Your task to perform on an android device: Go to privacy settings Image 0: 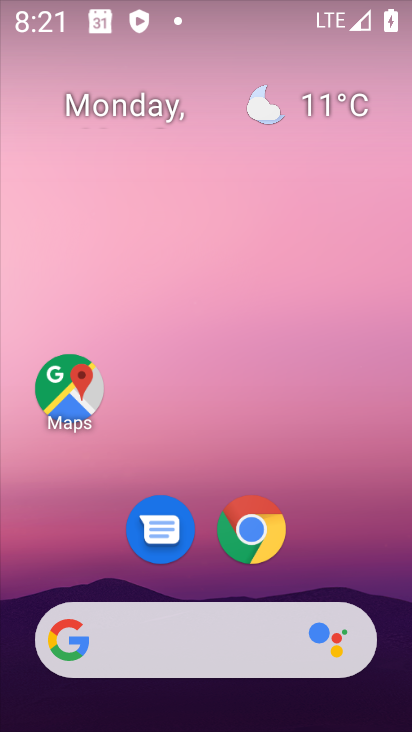
Step 0: drag from (218, 645) to (238, 65)
Your task to perform on an android device: Go to privacy settings Image 1: 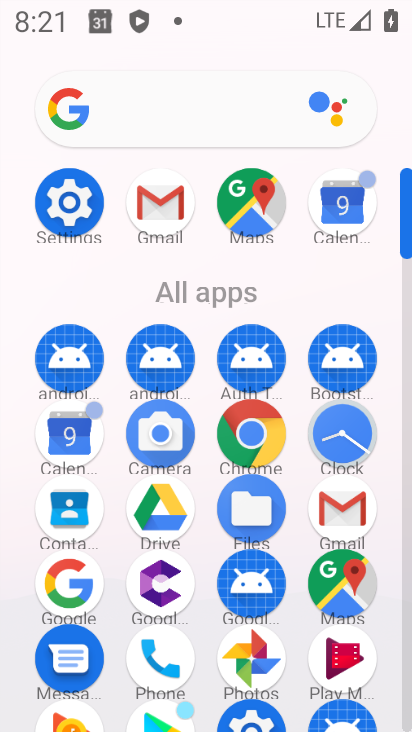
Step 1: click (87, 206)
Your task to perform on an android device: Go to privacy settings Image 2: 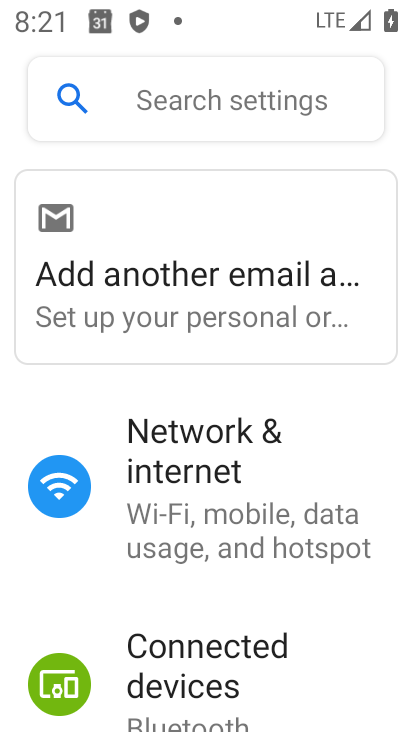
Step 2: drag from (276, 588) to (267, 37)
Your task to perform on an android device: Go to privacy settings Image 3: 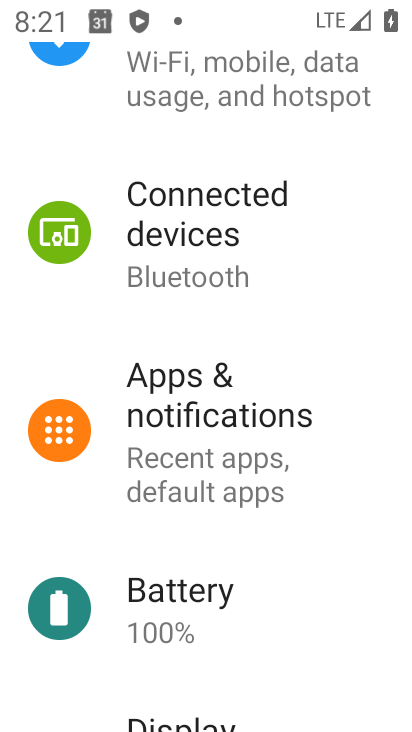
Step 3: drag from (178, 619) to (158, 4)
Your task to perform on an android device: Go to privacy settings Image 4: 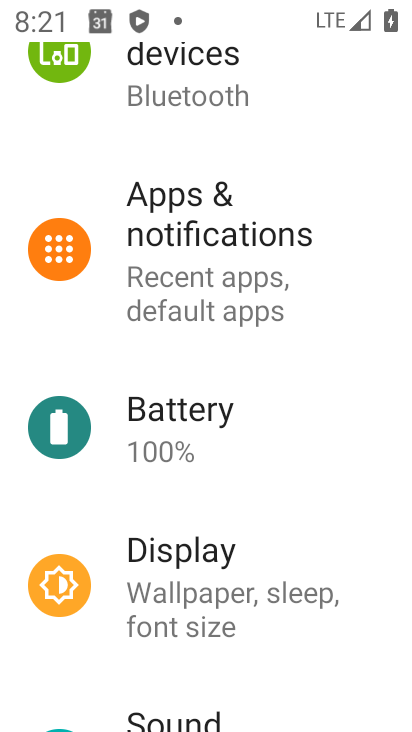
Step 4: drag from (219, 658) to (235, 150)
Your task to perform on an android device: Go to privacy settings Image 5: 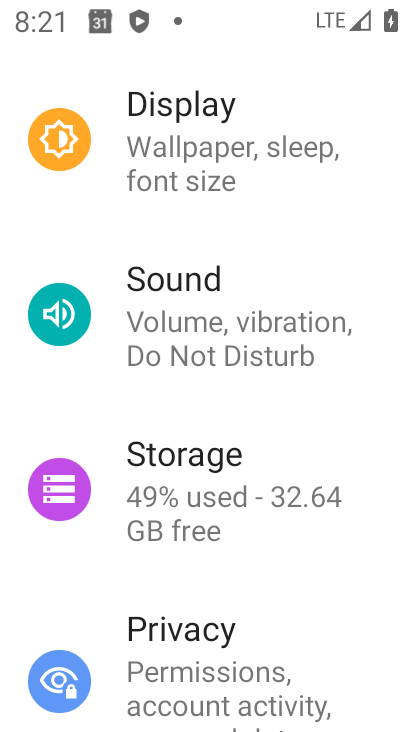
Step 5: click (210, 653)
Your task to perform on an android device: Go to privacy settings Image 6: 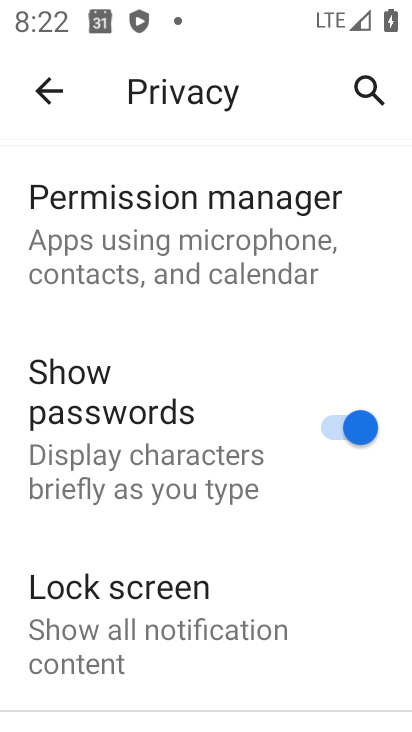
Step 6: task complete